Your task to perform on an android device: Search for sushi restaurants on Maps Image 0: 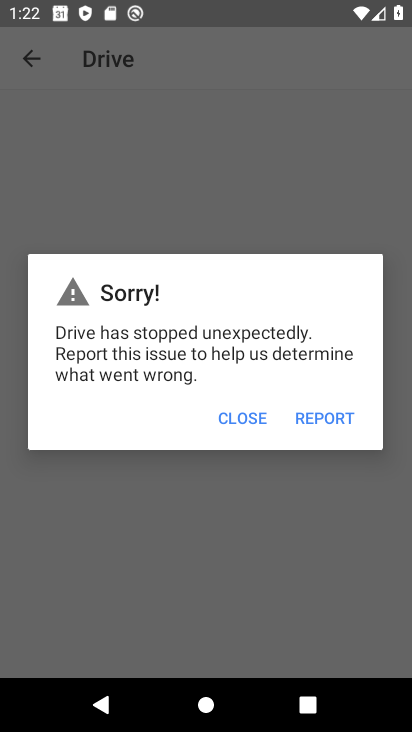
Step 0: press home button
Your task to perform on an android device: Search for sushi restaurants on Maps Image 1: 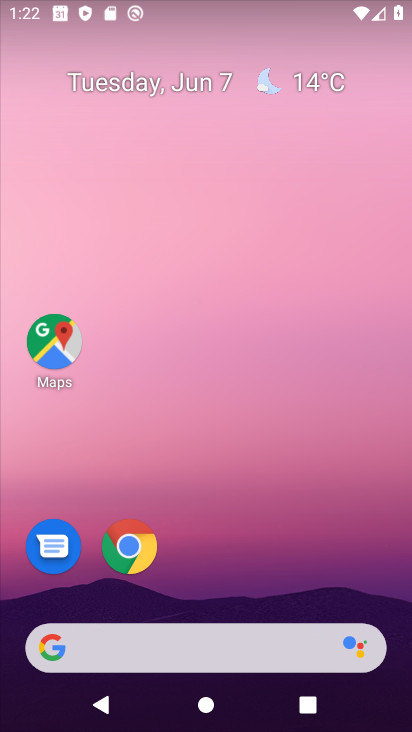
Step 1: click (64, 362)
Your task to perform on an android device: Search for sushi restaurants on Maps Image 2: 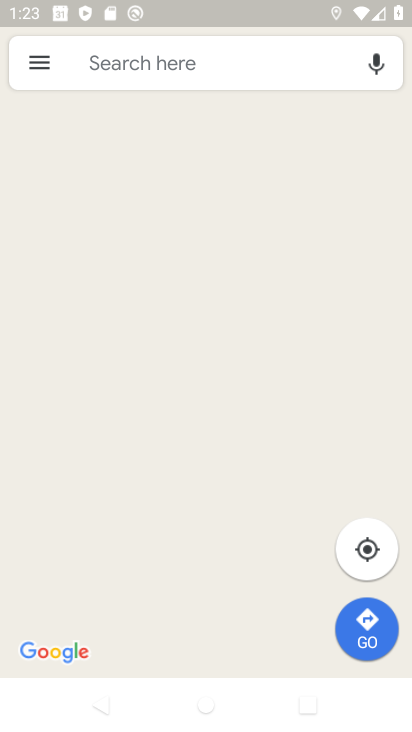
Step 2: click (128, 51)
Your task to perform on an android device: Search for sushi restaurants on Maps Image 3: 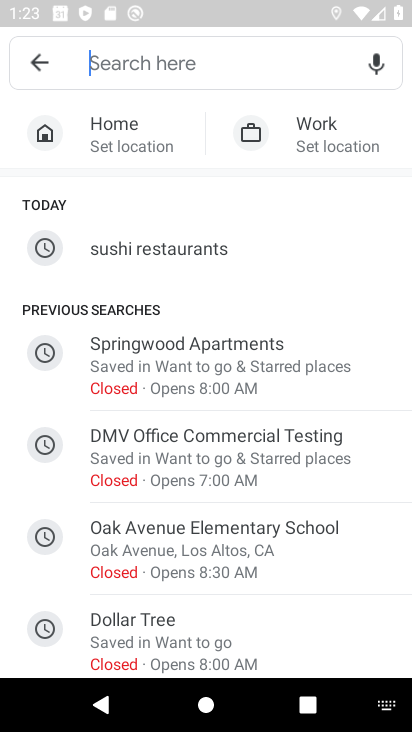
Step 3: click (277, 264)
Your task to perform on an android device: Search for sushi restaurants on Maps Image 4: 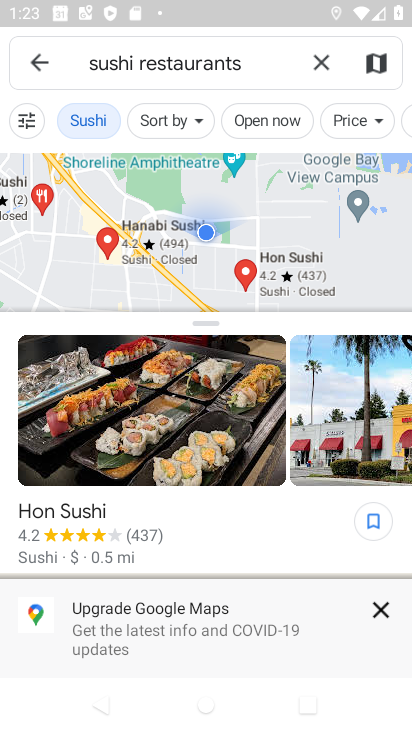
Step 4: task complete